Your task to perform on an android device: uninstall "Google Keep" Image 0: 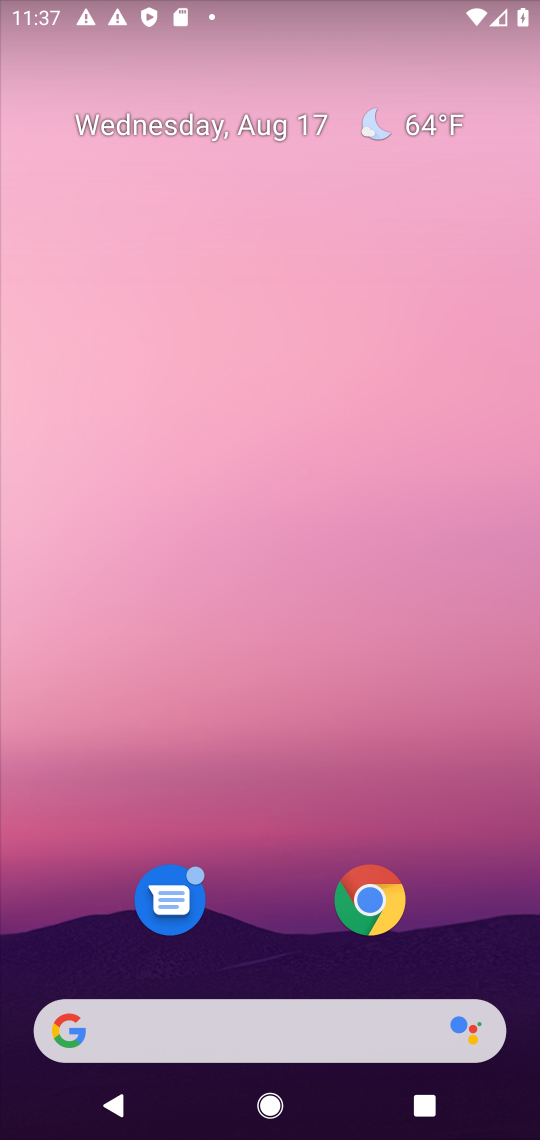
Step 0: drag from (315, 1028) to (497, 23)
Your task to perform on an android device: uninstall "Google Keep" Image 1: 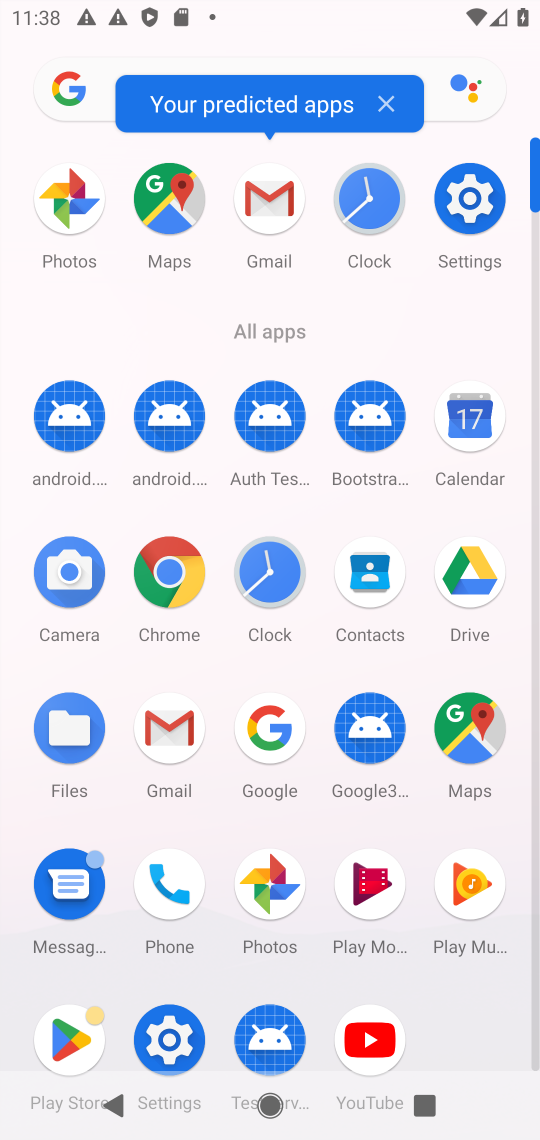
Step 1: task complete